Your task to perform on an android device: delete a single message in the gmail app Image 0: 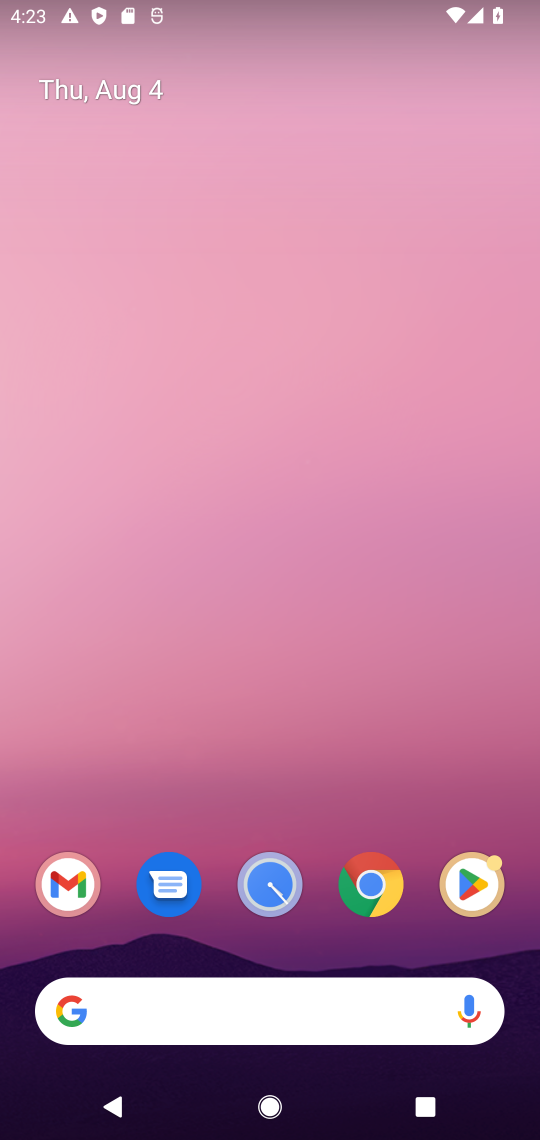
Step 0: drag from (383, 825) to (345, 341)
Your task to perform on an android device: delete a single message in the gmail app Image 1: 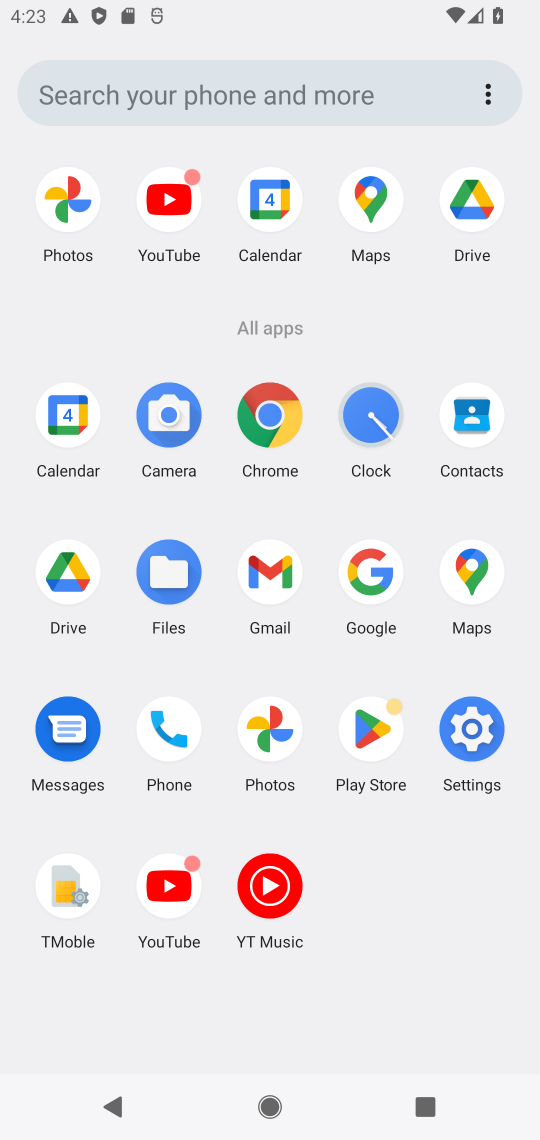
Step 1: click (270, 556)
Your task to perform on an android device: delete a single message in the gmail app Image 2: 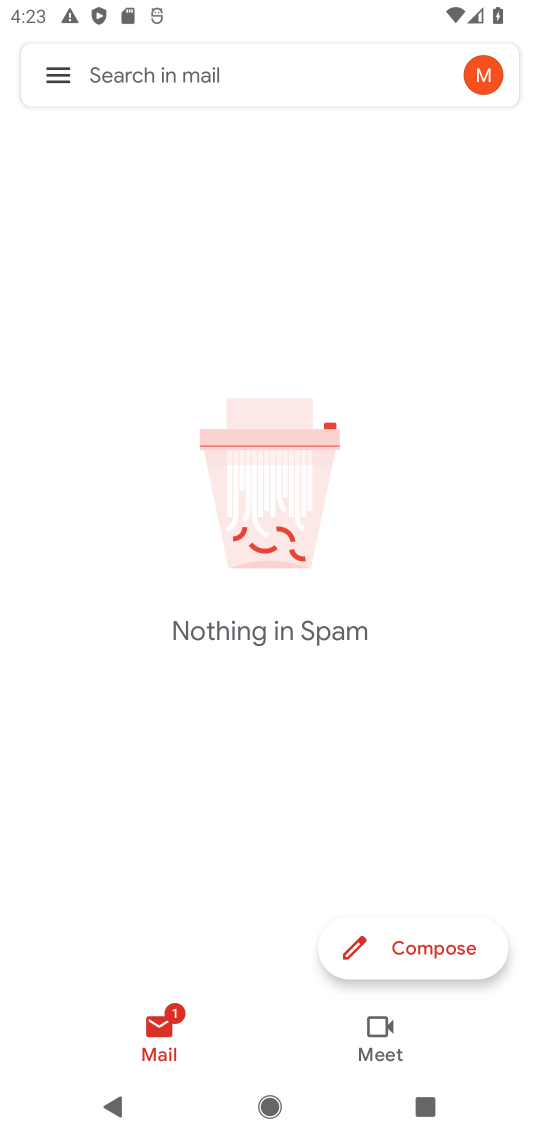
Step 2: click (53, 77)
Your task to perform on an android device: delete a single message in the gmail app Image 3: 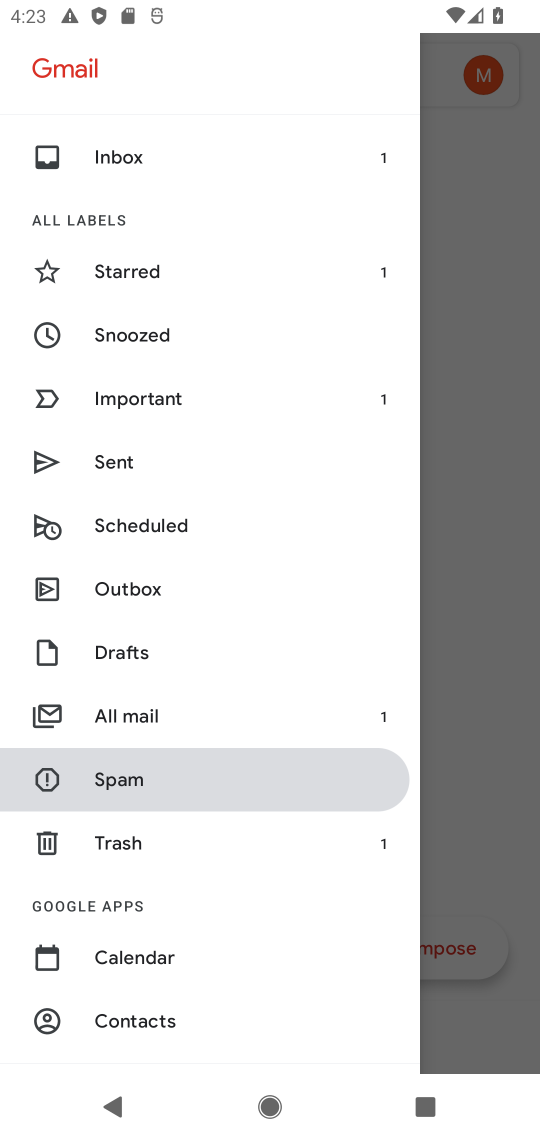
Step 3: click (193, 724)
Your task to perform on an android device: delete a single message in the gmail app Image 4: 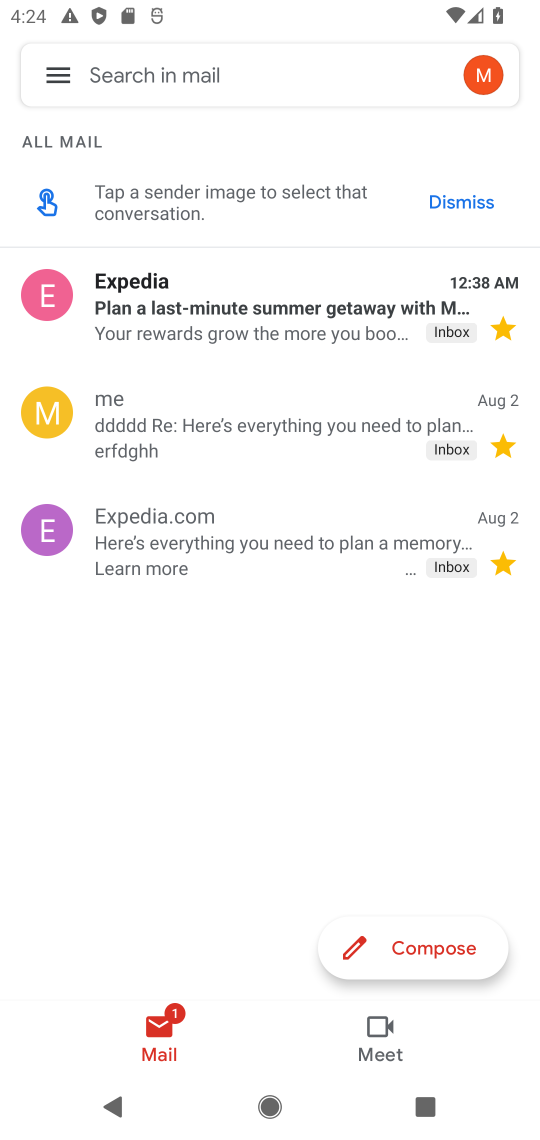
Step 4: click (55, 523)
Your task to perform on an android device: delete a single message in the gmail app Image 5: 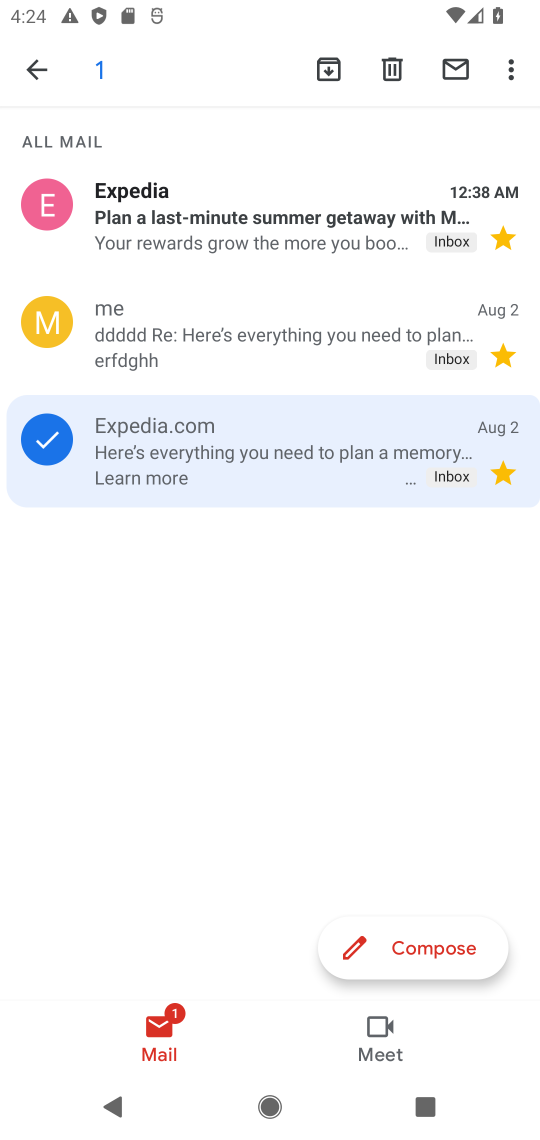
Step 5: click (383, 72)
Your task to perform on an android device: delete a single message in the gmail app Image 6: 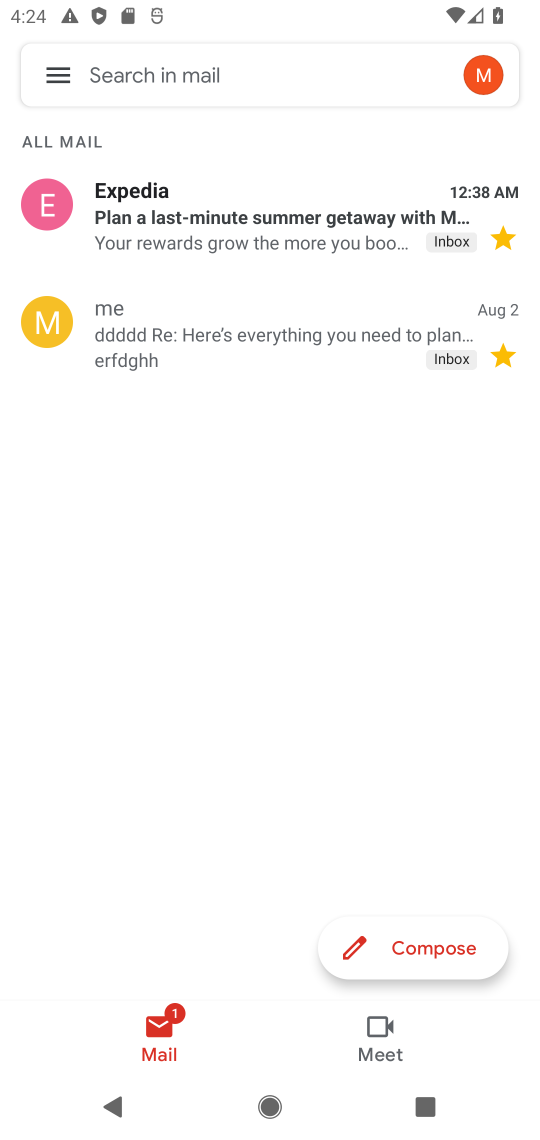
Step 6: task complete